Your task to perform on an android device: open device folders in google photos Image 0: 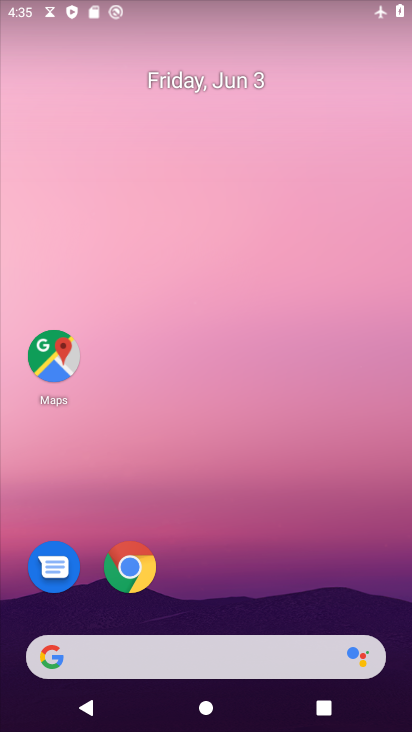
Step 0: drag from (272, 581) to (221, 87)
Your task to perform on an android device: open device folders in google photos Image 1: 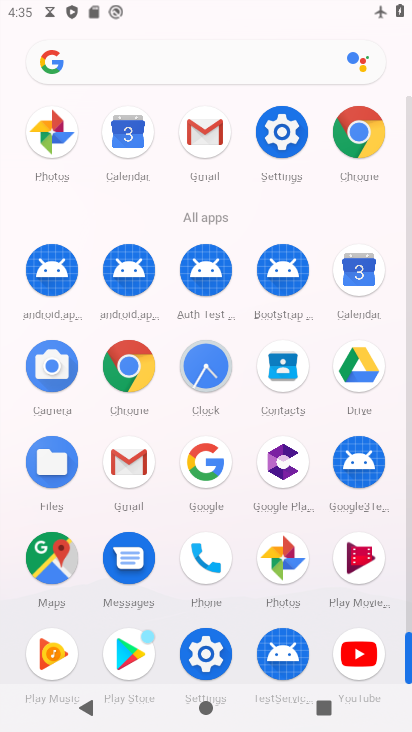
Step 1: click (46, 129)
Your task to perform on an android device: open device folders in google photos Image 2: 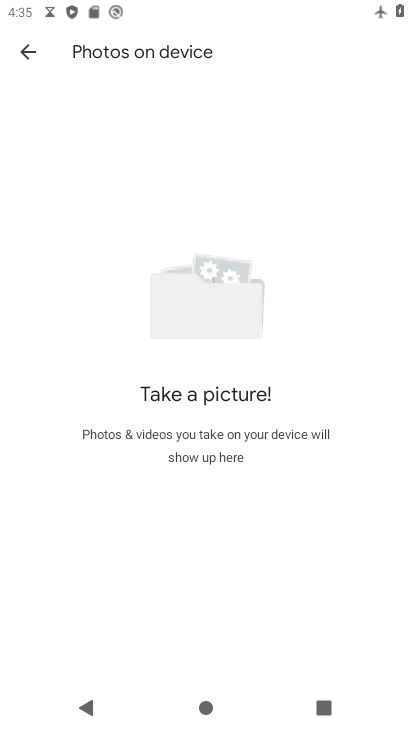
Step 2: click (28, 48)
Your task to perform on an android device: open device folders in google photos Image 3: 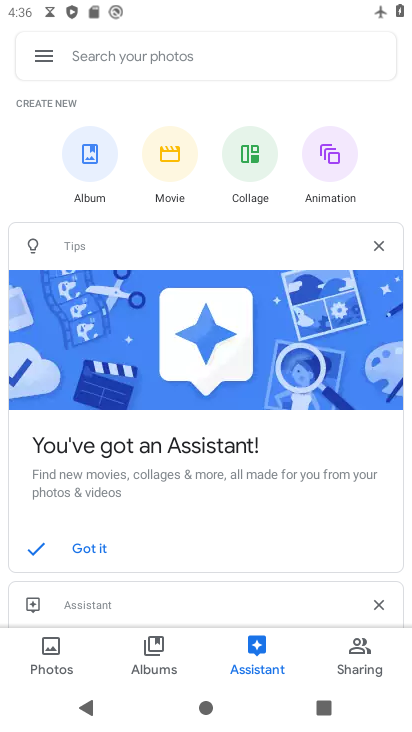
Step 3: click (28, 49)
Your task to perform on an android device: open device folders in google photos Image 4: 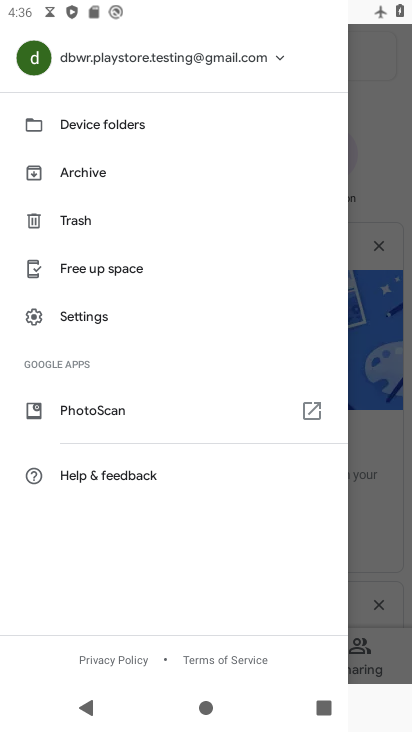
Step 4: click (118, 125)
Your task to perform on an android device: open device folders in google photos Image 5: 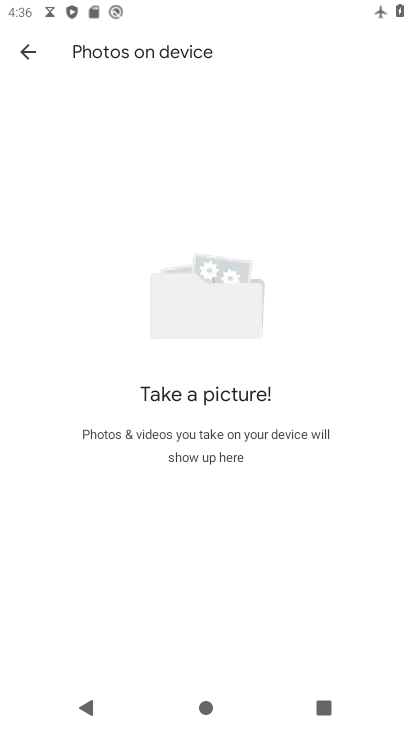
Step 5: task complete